Your task to perform on an android device: Open the calendar and show me this week's events Image 0: 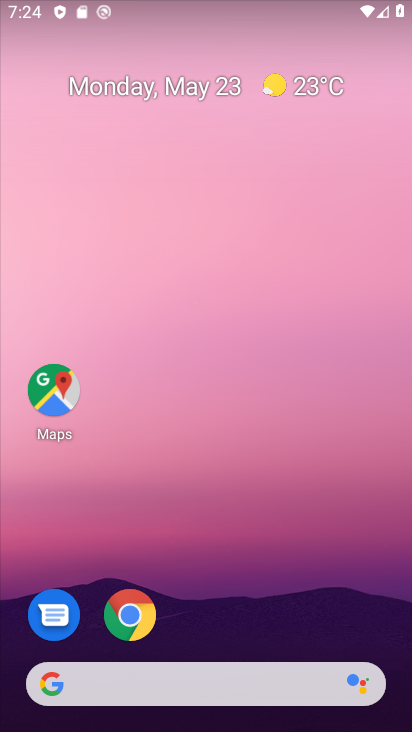
Step 0: drag from (292, 597) to (209, 113)
Your task to perform on an android device: Open the calendar and show me this week's events Image 1: 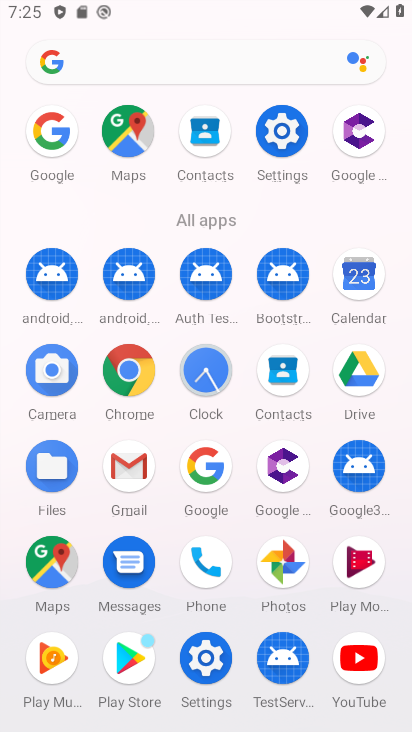
Step 1: click (359, 274)
Your task to perform on an android device: Open the calendar and show me this week's events Image 2: 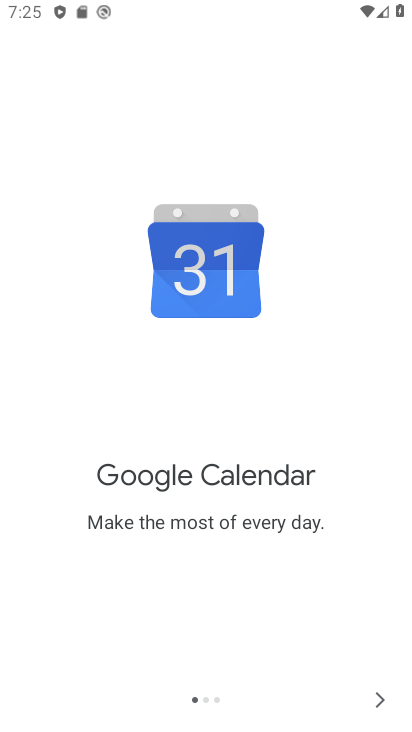
Step 2: click (381, 701)
Your task to perform on an android device: Open the calendar and show me this week's events Image 3: 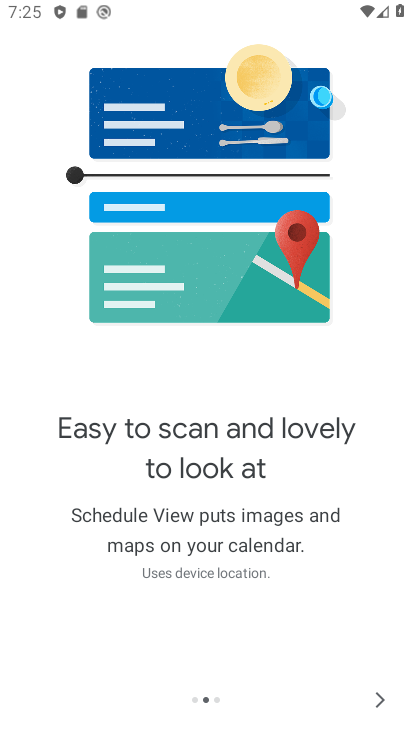
Step 3: click (381, 701)
Your task to perform on an android device: Open the calendar and show me this week's events Image 4: 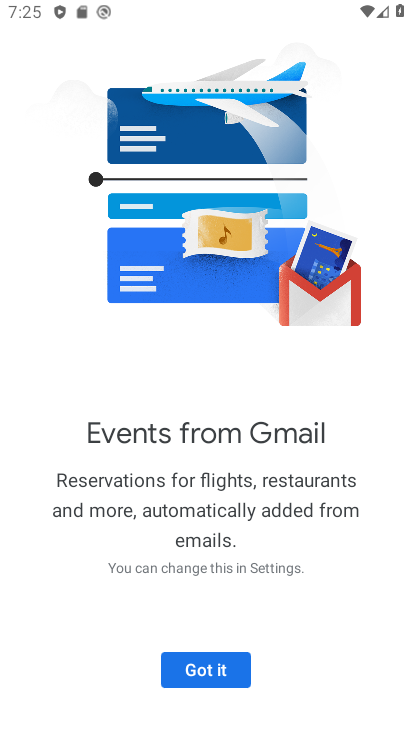
Step 4: click (204, 664)
Your task to perform on an android device: Open the calendar and show me this week's events Image 5: 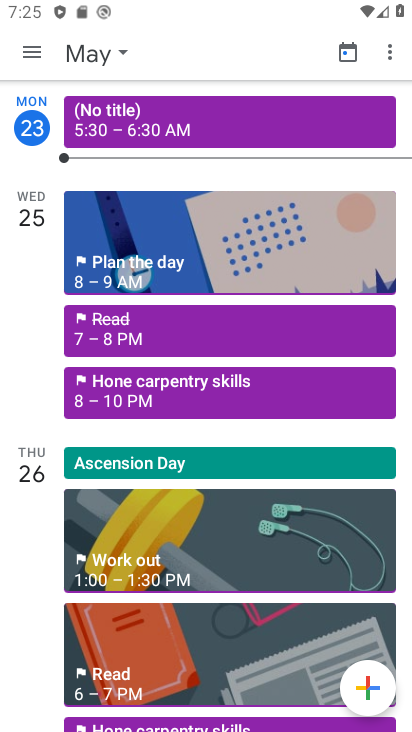
Step 5: click (120, 51)
Your task to perform on an android device: Open the calendar and show me this week's events Image 6: 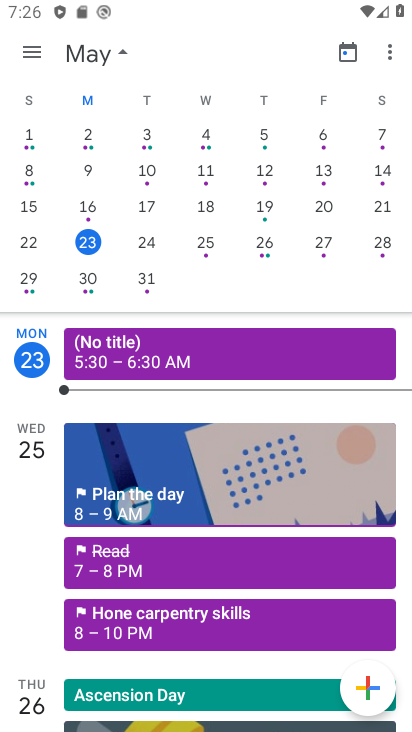
Step 6: click (221, 236)
Your task to perform on an android device: Open the calendar and show me this week's events Image 7: 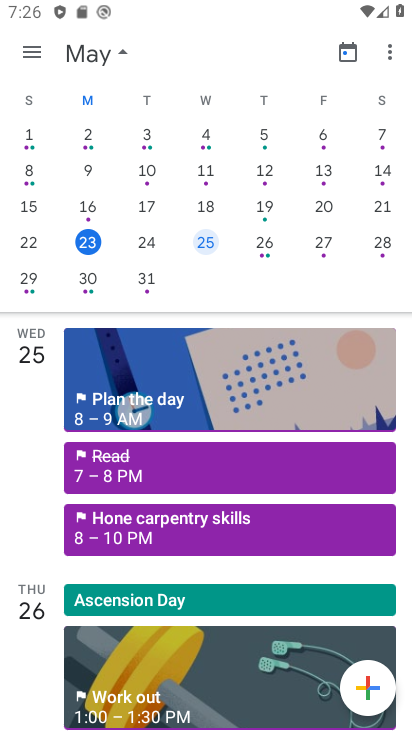
Step 7: click (25, 42)
Your task to perform on an android device: Open the calendar and show me this week's events Image 8: 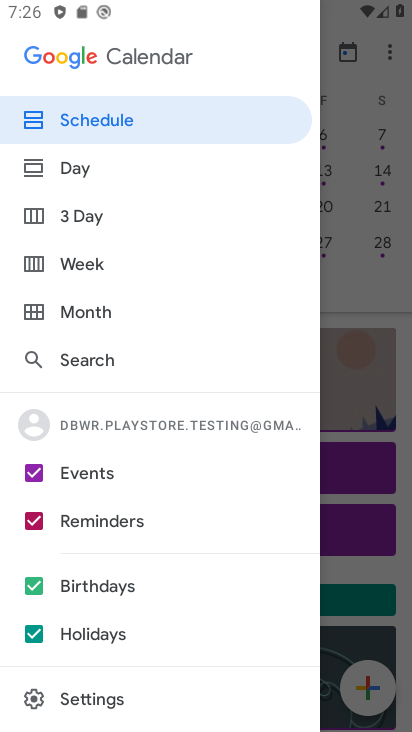
Step 8: click (123, 114)
Your task to perform on an android device: Open the calendar and show me this week's events Image 9: 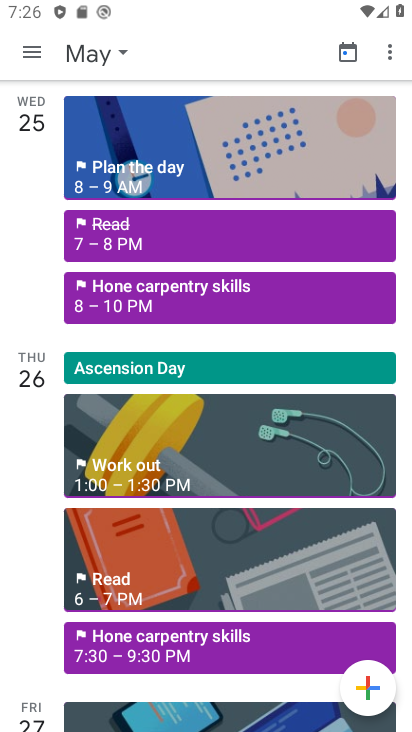
Step 9: task complete